Your task to perform on an android device: Do I have any events tomorrow? Image 0: 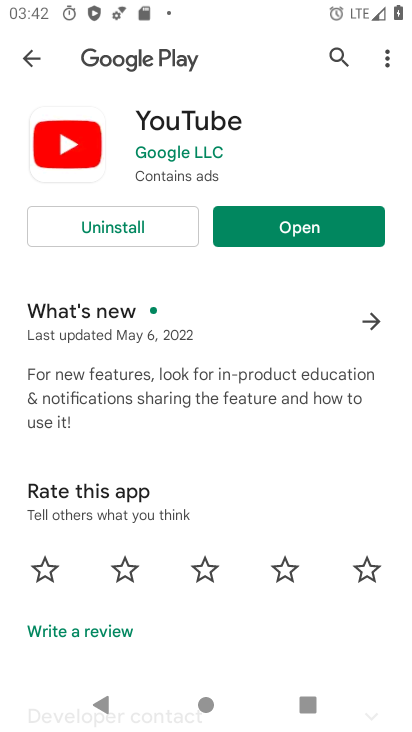
Step 0: press home button
Your task to perform on an android device: Do I have any events tomorrow? Image 1: 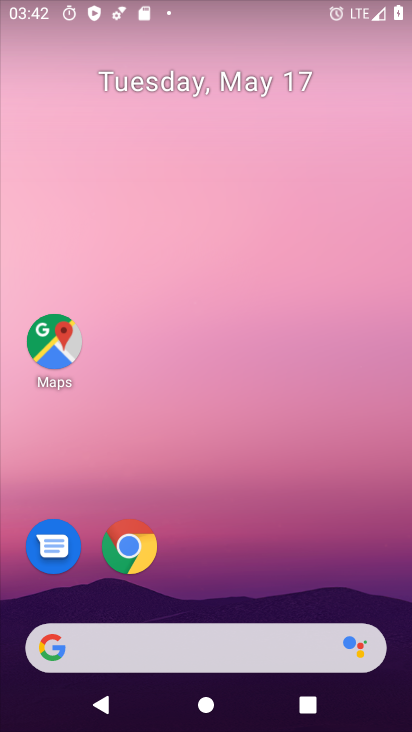
Step 1: drag from (172, 559) to (190, 112)
Your task to perform on an android device: Do I have any events tomorrow? Image 2: 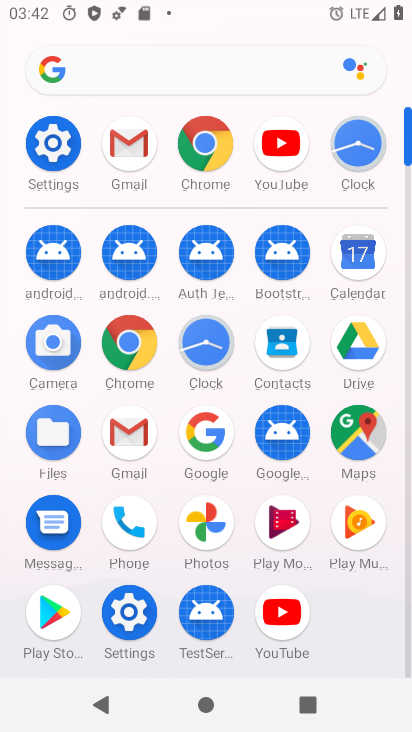
Step 2: click (342, 261)
Your task to perform on an android device: Do I have any events tomorrow? Image 3: 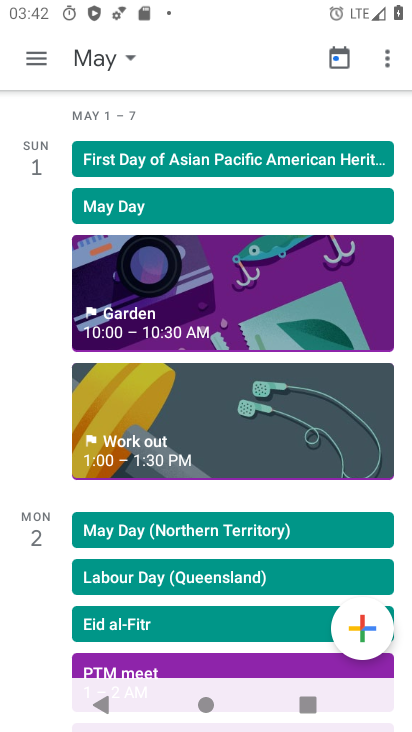
Step 3: click (122, 49)
Your task to perform on an android device: Do I have any events tomorrow? Image 4: 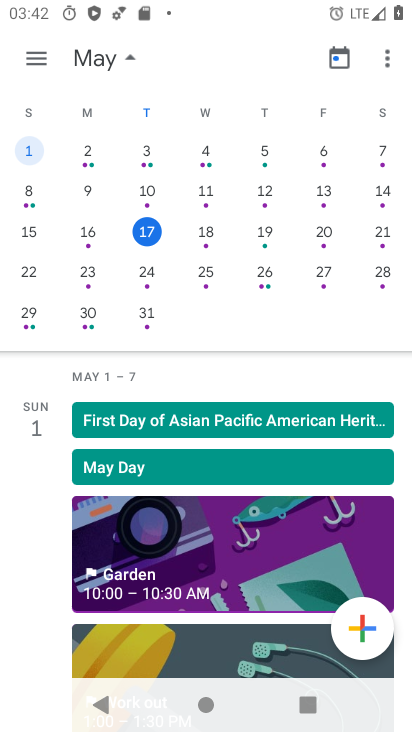
Step 4: click (199, 218)
Your task to perform on an android device: Do I have any events tomorrow? Image 5: 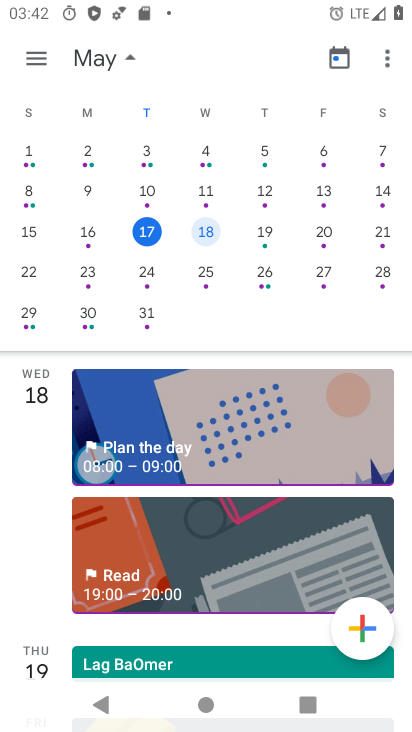
Step 5: click (124, 58)
Your task to perform on an android device: Do I have any events tomorrow? Image 6: 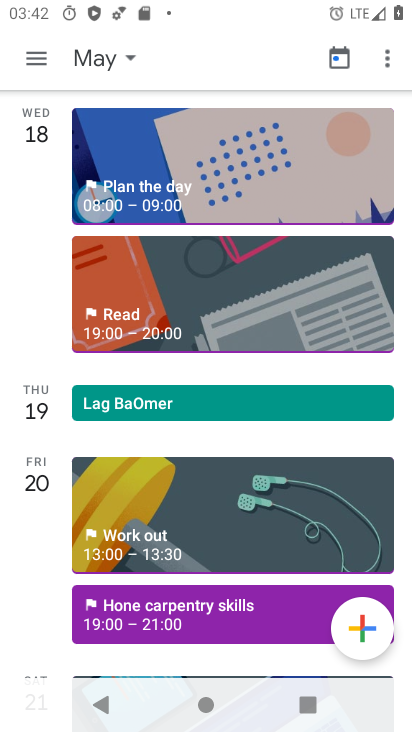
Step 6: task complete